Your task to perform on an android device: turn vacation reply on in the gmail app Image 0: 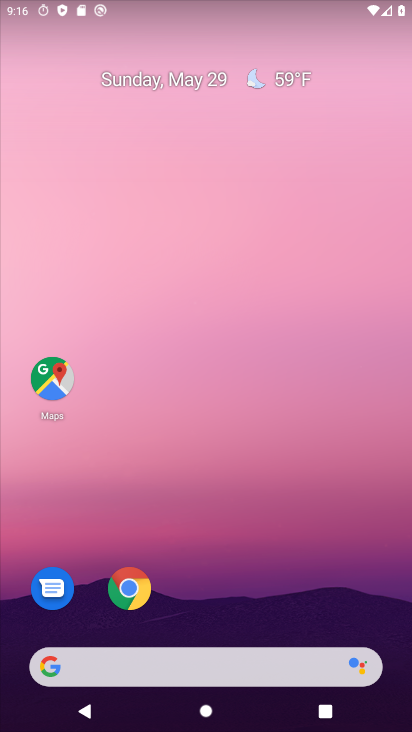
Step 0: drag from (186, 615) to (218, 24)
Your task to perform on an android device: turn vacation reply on in the gmail app Image 1: 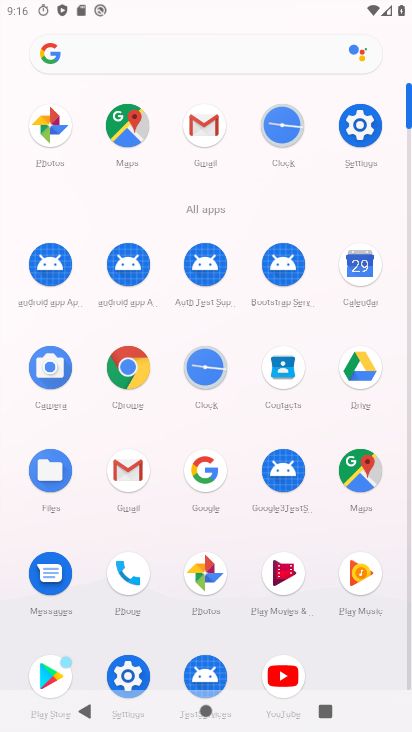
Step 1: click (124, 486)
Your task to perform on an android device: turn vacation reply on in the gmail app Image 2: 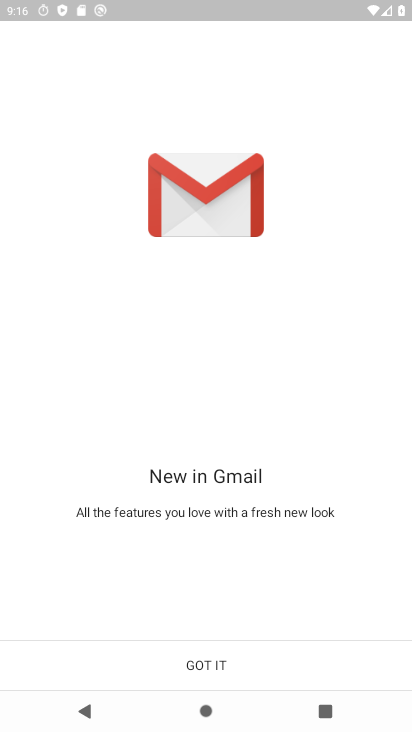
Step 2: click (210, 661)
Your task to perform on an android device: turn vacation reply on in the gmail app Image 3: 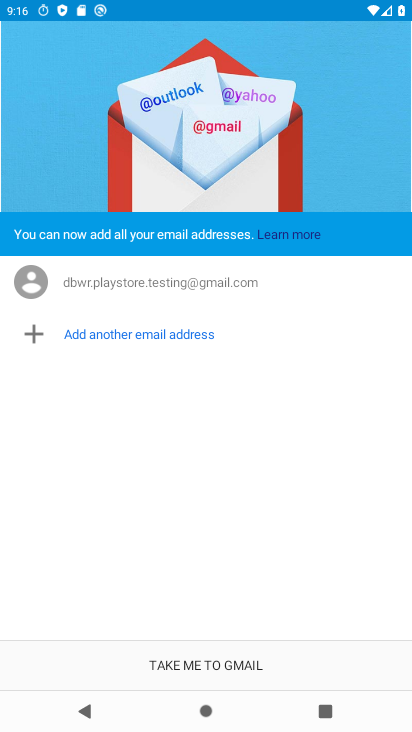
Step 3: click (205, 660)
Your task to perform on an android device: turn vacation reply on in the gmail app Image 4: 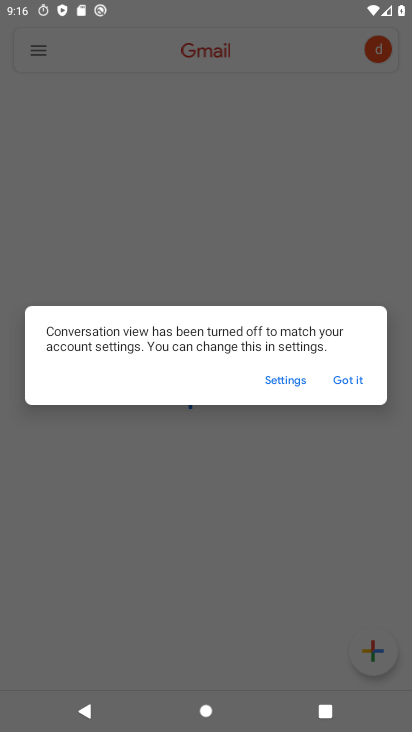
Step 4: click (364, 385)
Your task to perform on an android device: turn vacation reply on in the gmail app Image 5: 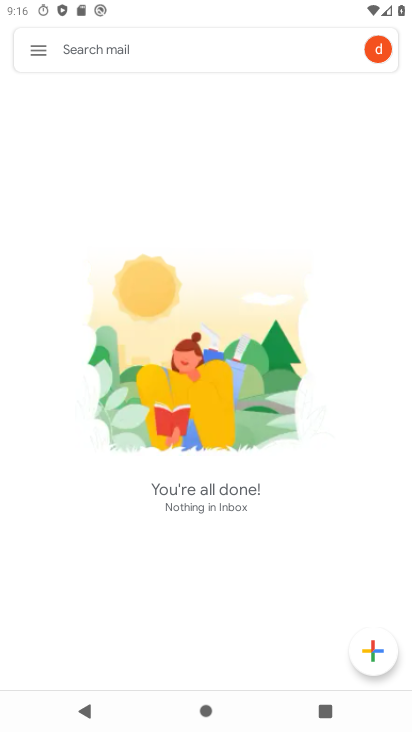
Step 5: click (38, 50)
Your task to perform on an android device: turn vacation reply on in the gmail app Image 6: 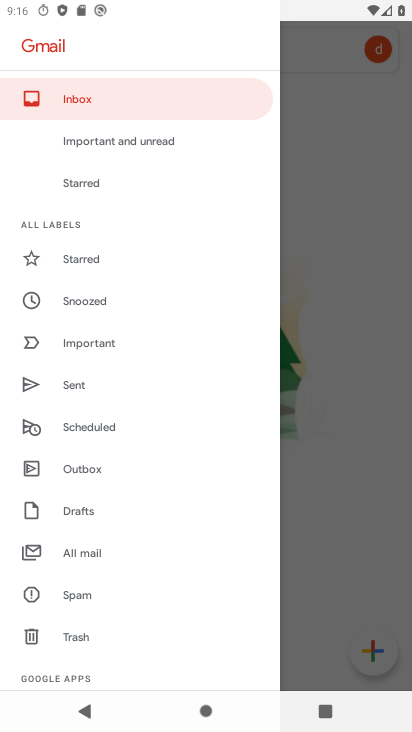
Step 6: drag from (91, 612) to (159, 229)
Your task to perform on an android device: turn vacation reply on in the gmail app Image 7: 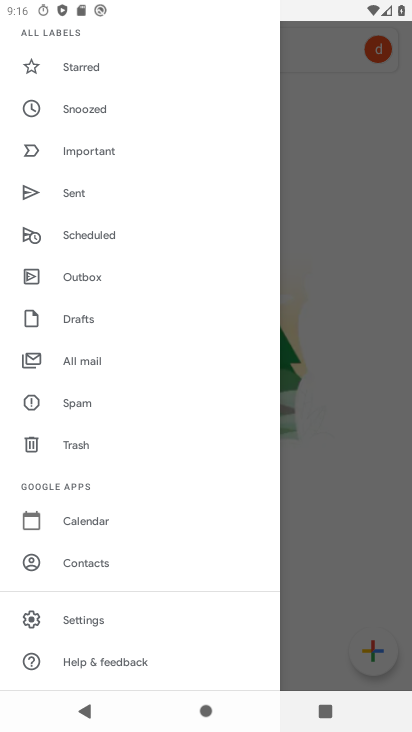
Step 7: click (83, 624)
Your task to perform on an android device: turn vacation reply on in the gmail app Image 8: 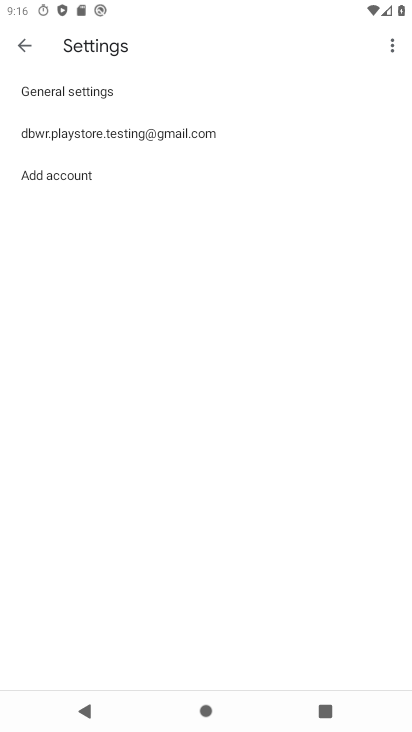
Step 8: click (87, 131)
Your task to perform on an android device: turn vacation reply on in the gmail app Image 9: 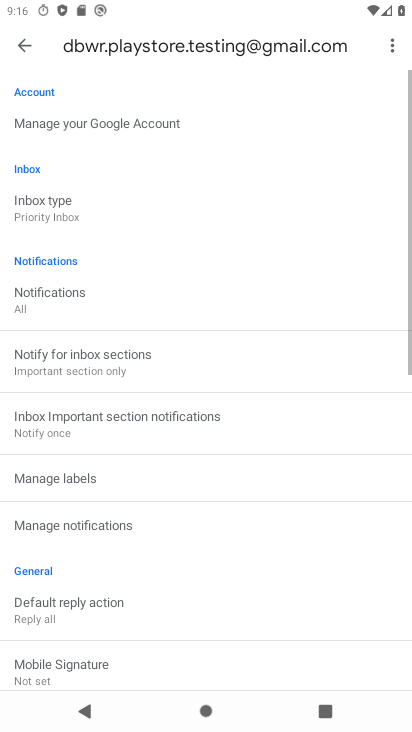
Step 9: drag from (177, 566) to (195, 257)
Your task to perform on an android device: turn vacation reply on in the gmail app Image 10: 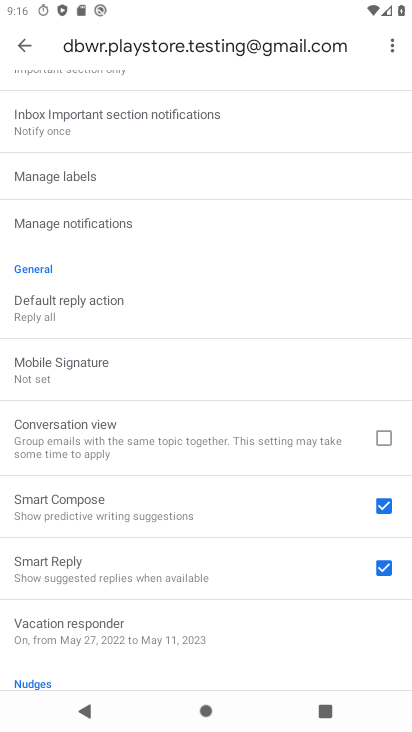
Step 10: drag from (191, 575) to (210, 438)
Your task to perform on an android device: turn vacation reply on in the gmail app Image 11: 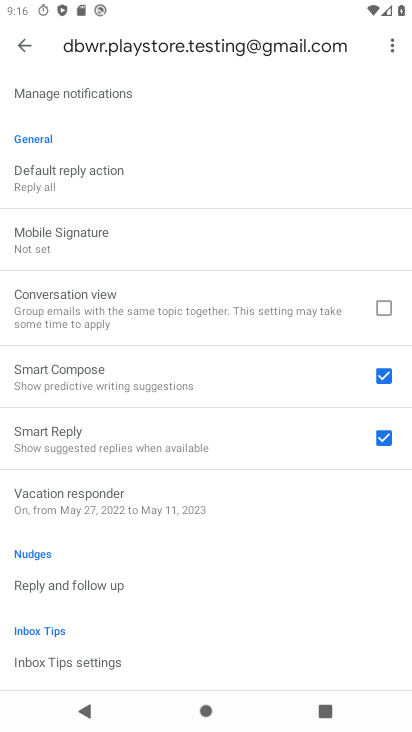
Step 11: click (74, 508)
Your task to perform on an android device: turn vacation reply on in the gmail app Image 12: 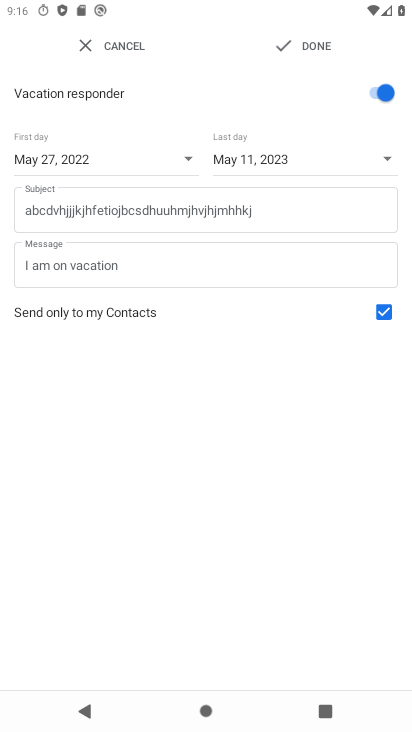
Step 12: task complete